Your task to perform on an android device: find which apps use the phone's location Image 0: 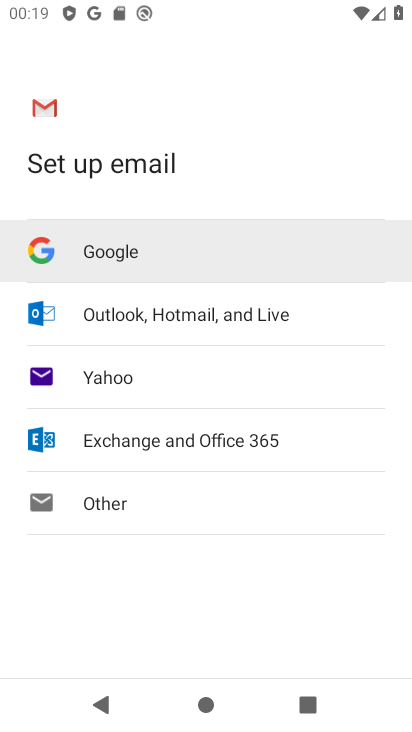
Step 0: press home button
Your task to perform on an android device: find which apps use the phone's location Image 1: 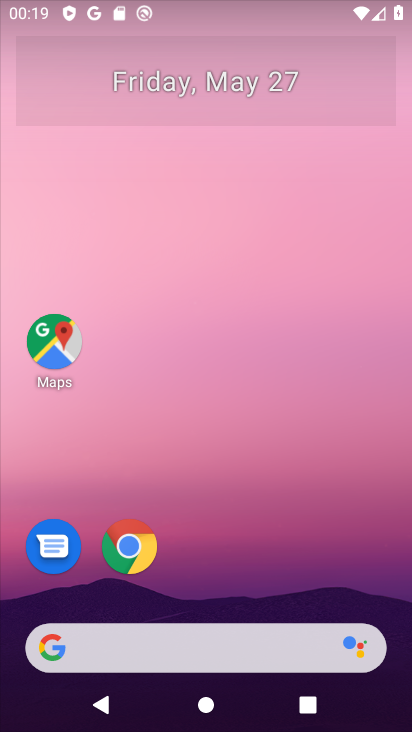
Step 1: drag from (353, 590) to (280, 78)
Your task to perform on an android device: find which apps use the phone's location Image 2: 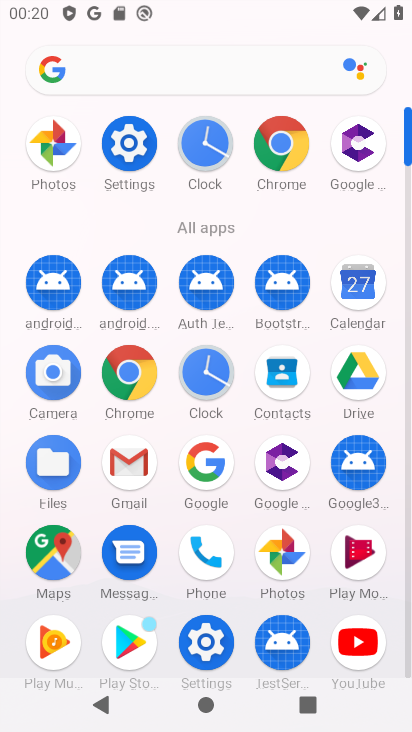
Step 2: click (196, 563)
Your task to perform on an android device: find which apps use the phone's location Image 3: 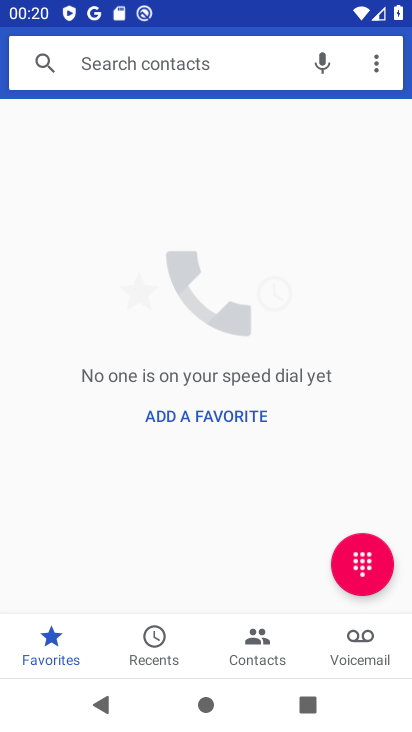
Step 3: task complete